Your task to perform on an android device: set default search engine in the chrome app Image 0: 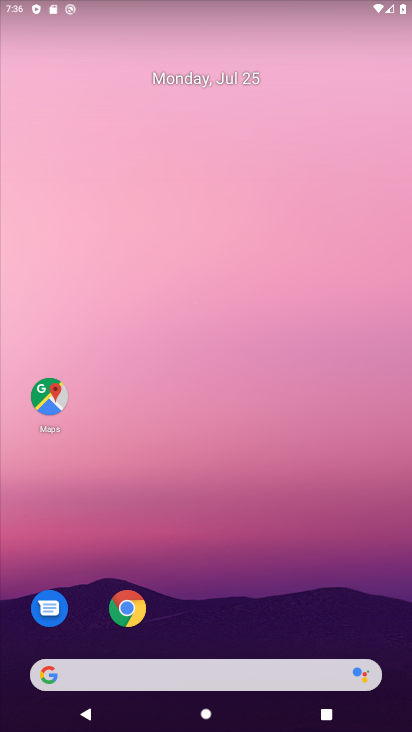
Step 0: drag from (200, 629) to (229, 106)
Your task to perform on an android device: set default search engine in the chrome app Image 1: 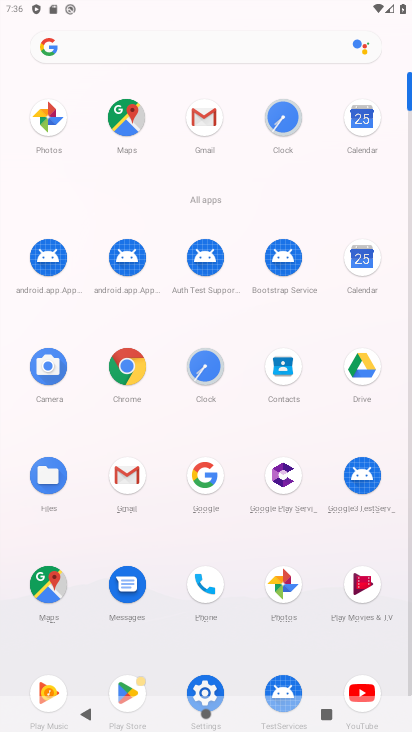
Step 1: click (126, 365)
Your task to perform on an android device: set default search engine in the chrome app Image 2: 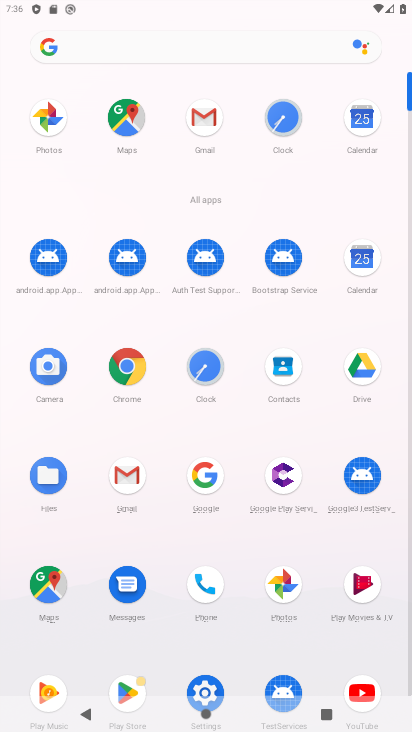
Step 2: click (126, 365)
Your task to perform on an android device: set default search engine in the chrome app Image 3: 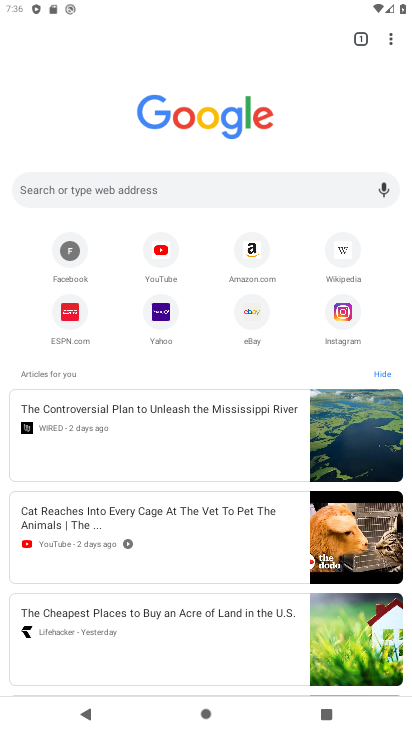
Step 3: drag from (385, 33) to (283, 321)
Your task to perform on an android device: set default search engine in the chrome app Image 4: 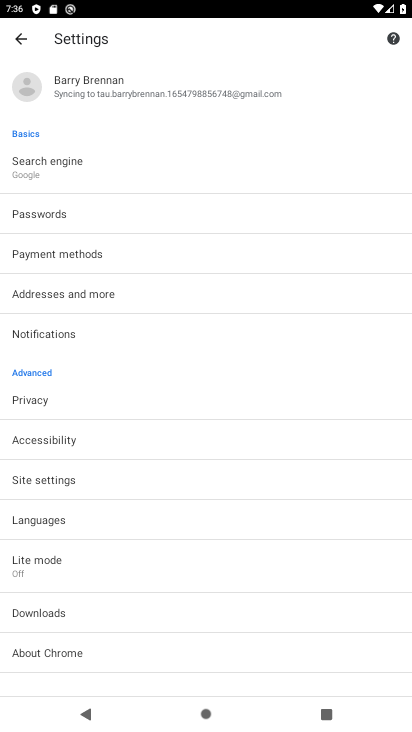
Step 4: click (54, 168)
Your task to perform on an android device: set default search engine in the chrome app Image 5: 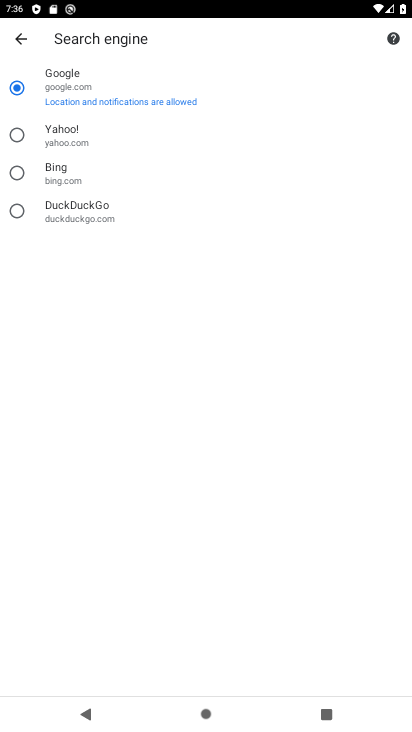
Step 5: task complete